Your task to perform on an android device: change notification settings in the gmail app Image 0: 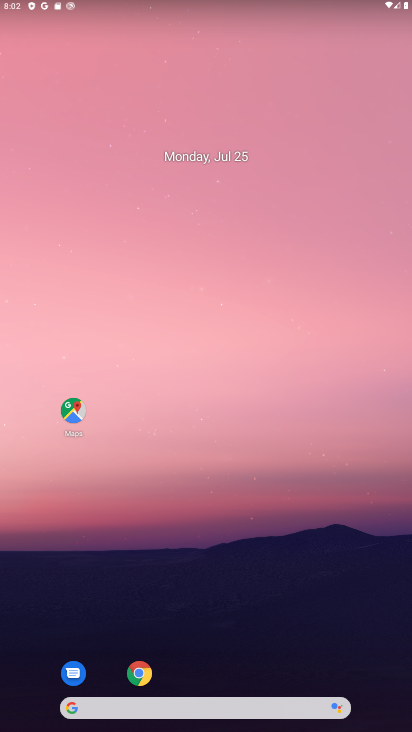
Step 0: drag from (266, 663) to (249, 40)
Your task to perform on an android device: change notification settings in the gmail app Image 1: 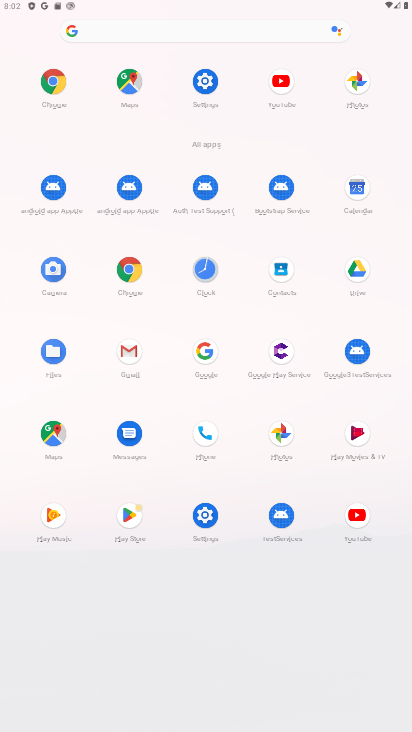
Step 1: click (215, 95)
Your task to perform on an android device: change notification settings in the gmail app Image 2: 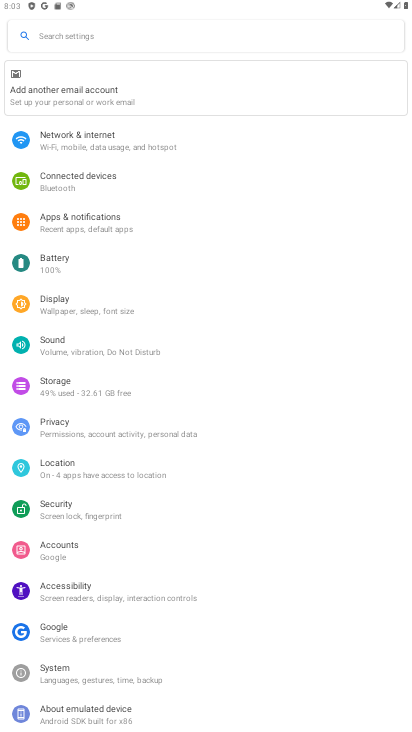
Step 2: task complete